Your task to perform on an android device: Open the calendar app, open the side menu, and click the "Day" option Image 0: 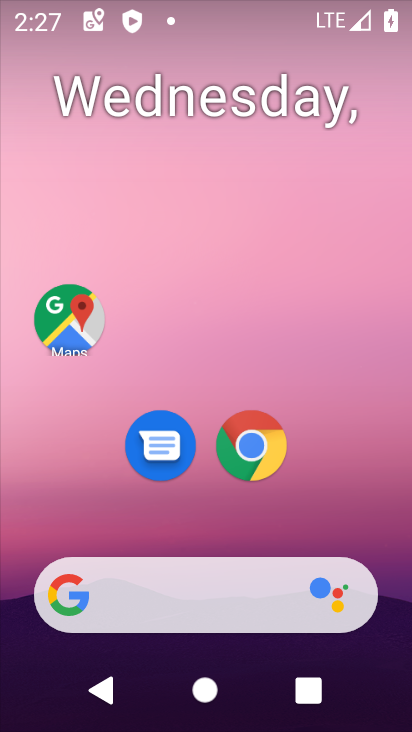
Step 0: drag from (201, 530) to (243, 228)
Your task to perform on an android device: Open the calendar app, open the side menu, and click the "Day" option Image 1: 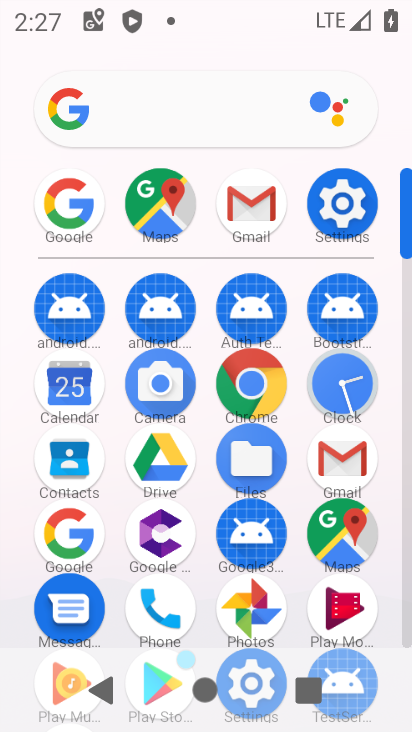
Step 1: click (66, 399)
Your task to perform on an android device: Open the calendar app, open the side menu, and click the "Day" option Image 2: 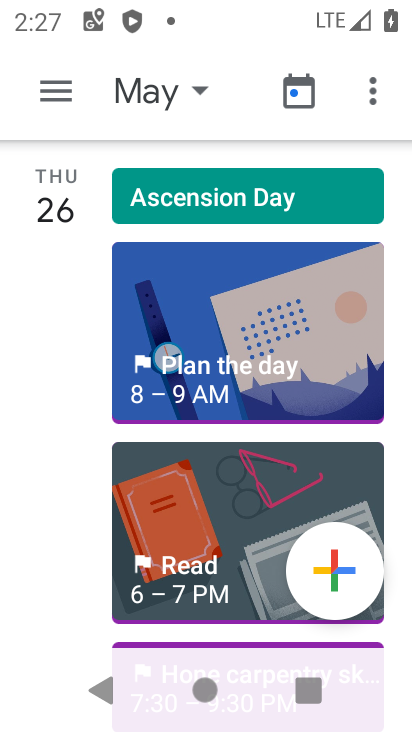
Step 2: click (45, 74)
Your task to perform on an android device: Open the calendar app, open the side menu, and click the "Day" option Image 3: 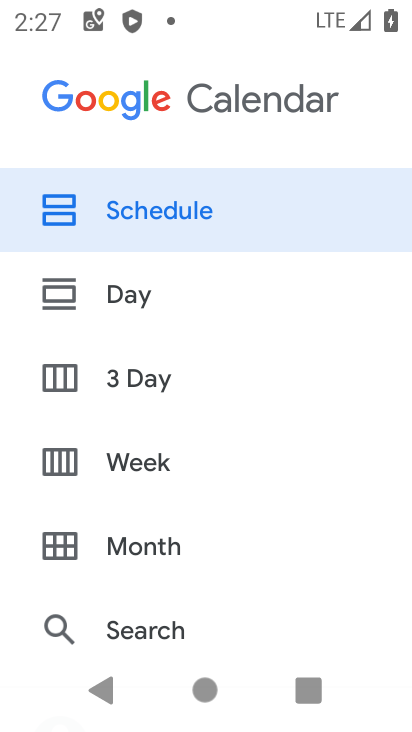
Step 3: click (105, 284)
Your task to perform on an android device: Open the calendar app, open the side menu, and click the "Day" option Image 4: 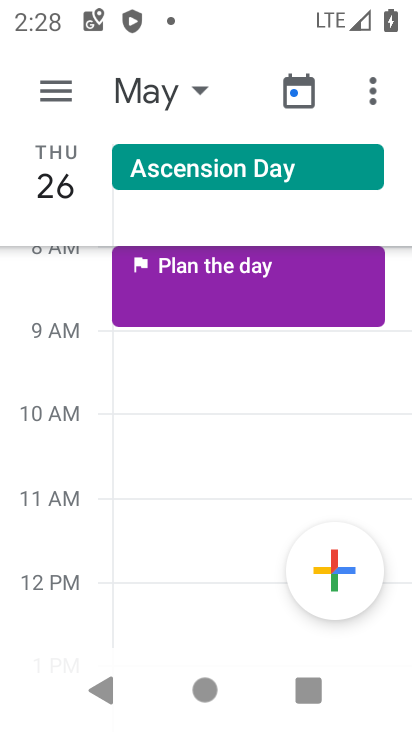
Step 4: task complete